Your task to perform on an android device: Look up the best rated headphones on Amazon. Image 0: 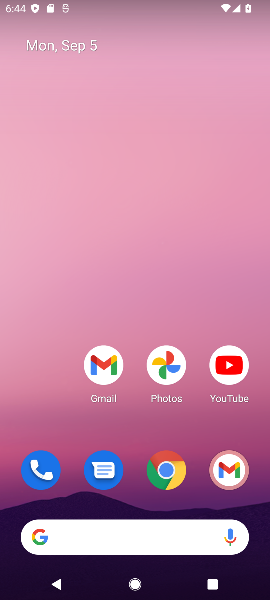
Step 0: click (121, 533)
Your task to perform on an android device: Look up the best rated headphones on Amazon. Image 1: 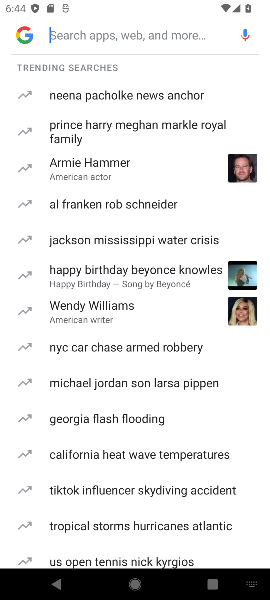
Step 1: type "amezon"
Your task to perform on an android device: Look up the best rated headphones on Amazon. Image 2: 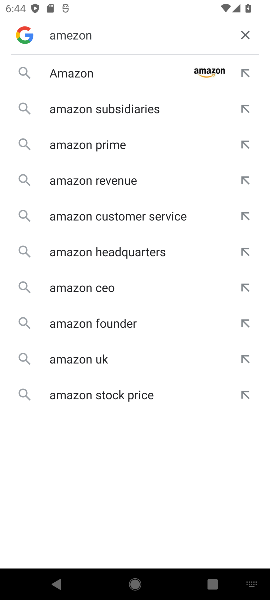
Step 2: click (75, 68)
Your task to perform on an android device: Look up the best rated headphones on Amazon. Image 3: 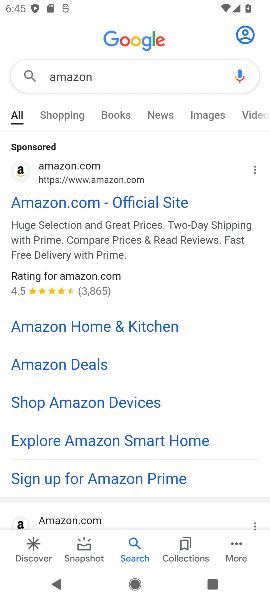
Step 3: click (84, 199)
Your task to perform on an android device: Look up the best rated headphones on Amazon. Image 4: 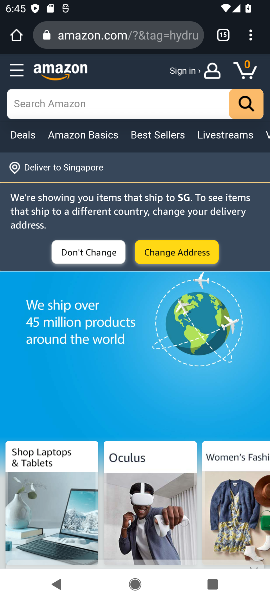
Step 4: click (67, 94)
Your task to perform on an android device: Look up the best rated headphones on Amazon. Image 5: 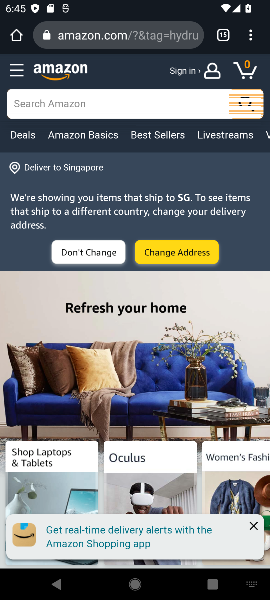
Step 5: type "best rated headphones"
Your task to perform on an android device: Look up the best rated headphones on Amazon. Image 6: 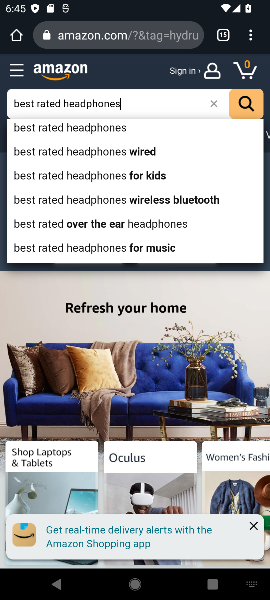
Step 6: click (249, 102)
Your task to perform on an android device: Look up the best rated headphones on Amazon. Image 7: 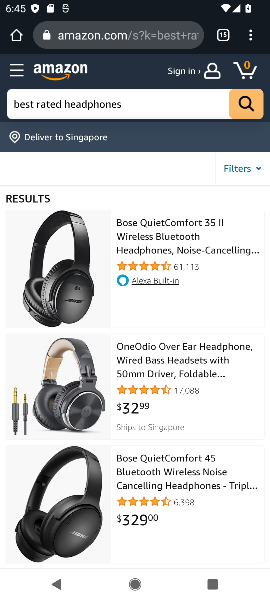
Step 7: task complete